Your task to perform on an android device: Add razer blackwidow to the cart on target.com Image 0: 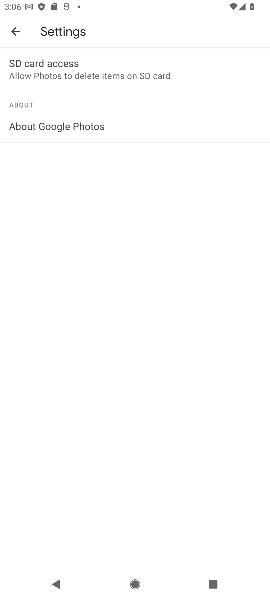
Step 0: press home button
Your task to perform on an android device: Add razer blackwidow to the cart on target.com Image 1: 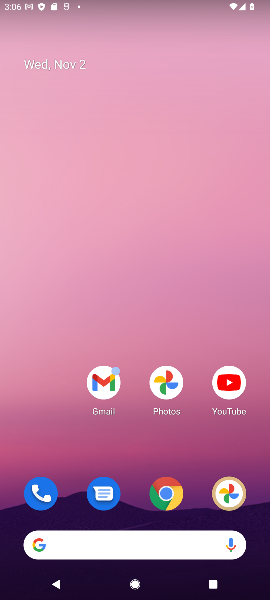
Step 1: click (157, 494)
Your task to perform on an android device: Add razer blackwidow to the cart on target.com Image 2: 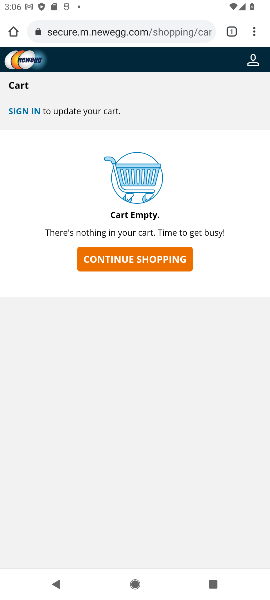
Step 2: click (120, 27)
Your task to perform on an android device: Add razer blackwidow to the cart on target.com Image 3: 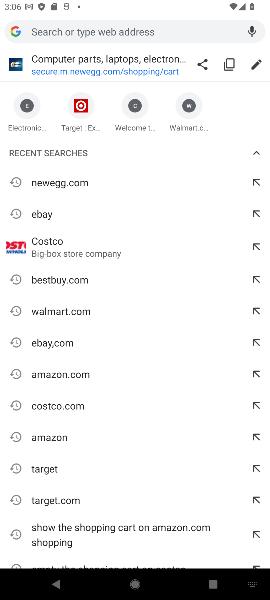
Step 3: click (68, 497)
Your task to perform on an android device: Add razer blackwidow to the cart on target.com Image 4: 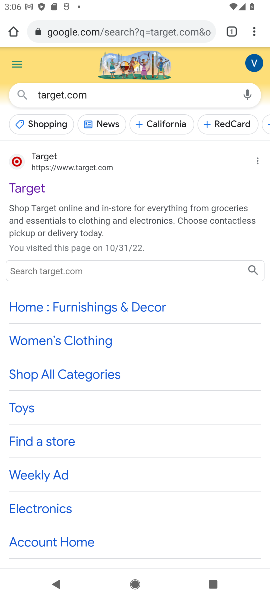
Step 4: click (44, 162)
Your task to perform on an android device: Add razer blackwidow to the cart on target.com Image 5: 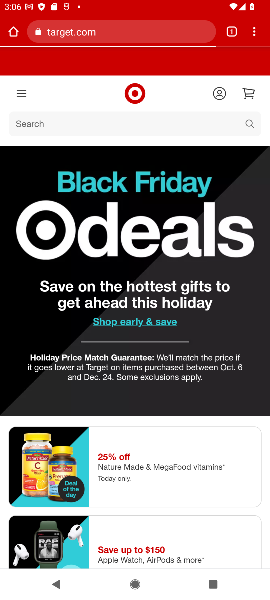
Step 5: click (98, 119)
Your task to perform on an android device: Add razer blackwidow to the cart on target.com Image 6: 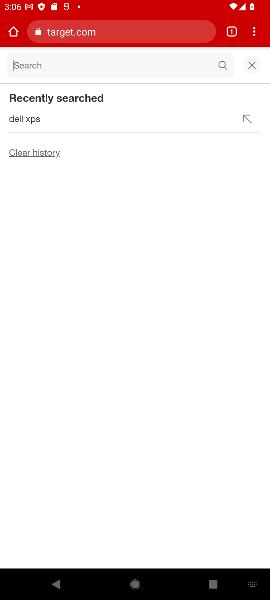
Step 6: type "razer blackwidow"
Your task to perform on an android device: Add razer blackwidow to the cart on target.com Image 7: 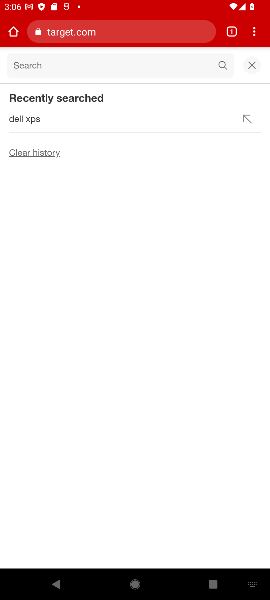
Step 7: press enter
Your task to perform on an android device: Add razer blackwidow to the cart on target.com Image 8: 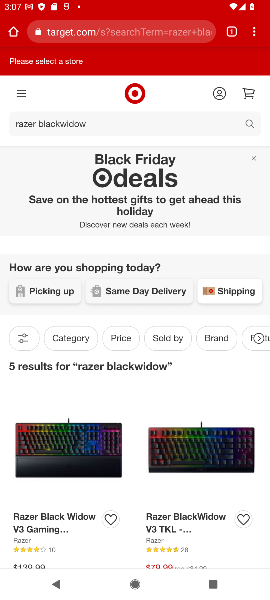
Step 8: click (68, 457)
Your task to perform on an android device: Add razer blackwidow to the cart on target.com Image 9: 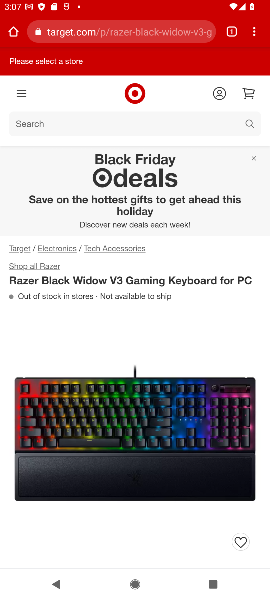
Step 9: drag from (208, 364) to (203, 113)
Your task to perform on an android device: Add razer blackwidow to the cart on target.com Image 10: 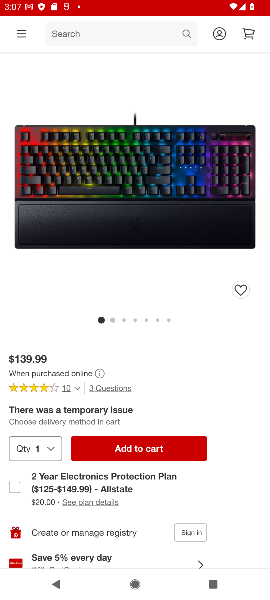
Step 10: click (159, 450)
Your task to perform on an android device: Add razer blackwidow to the cart on target.com Image 11: 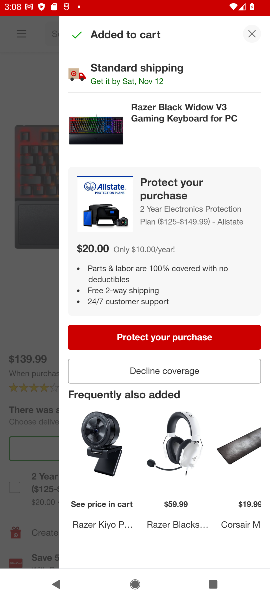
Step 11: click (248, 34)
Your task to perform on an android device: Add razer blackwidow to the cart on target.com Image 12: 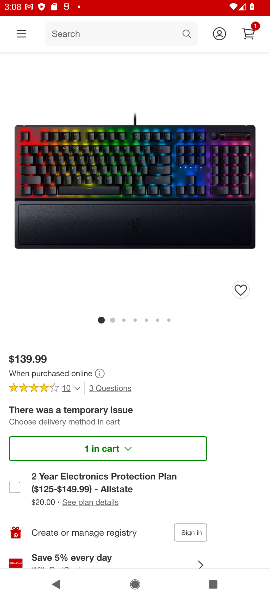
Step 12: task complete